Your task to perform on an android device: see sites visited before in the chrome app Image 0: 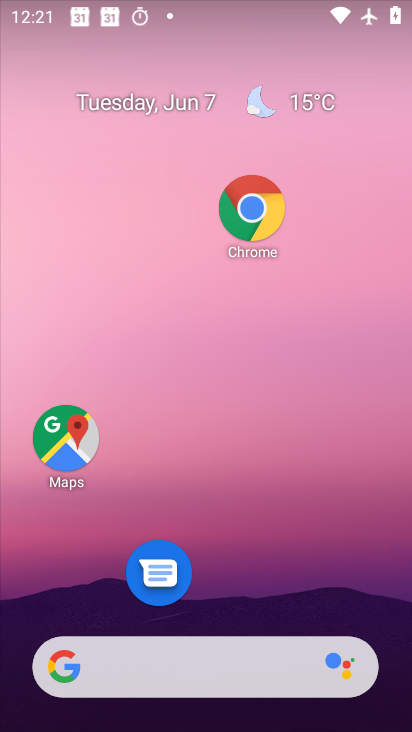
Step 0: click (236, 249)
Your task to perform on an android device: see sites visited before in the chrome app Image 1: 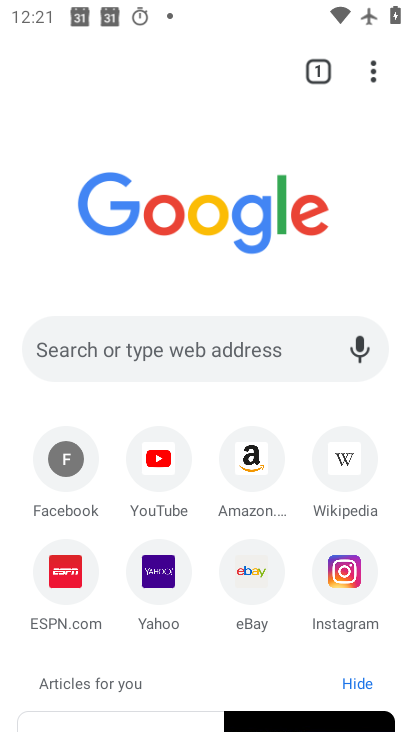
Step 1: task complete